Your task to perform on an android device: turn off location history Image 0: 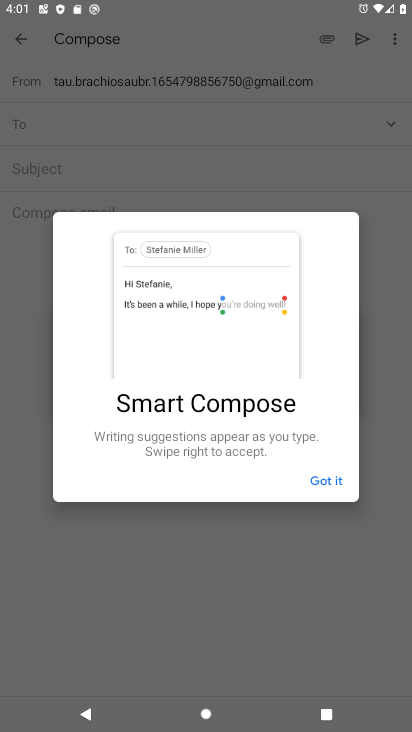
Step 0: press home button
Your task to perform on an android device: turn off location history Image 1: 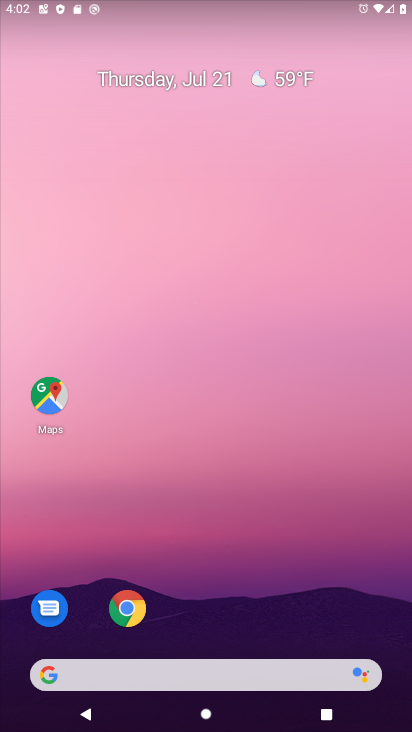
Step 1: drag from (228, 634) to (260, 64)
Your task to perform on an android device: turn off location history Image 2: 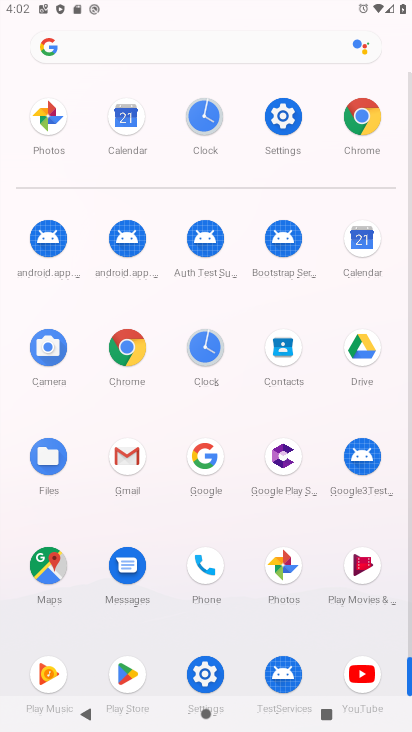
Step 2: click (280, 128)
Your task to perform on an android device: turn off location history Image 3: 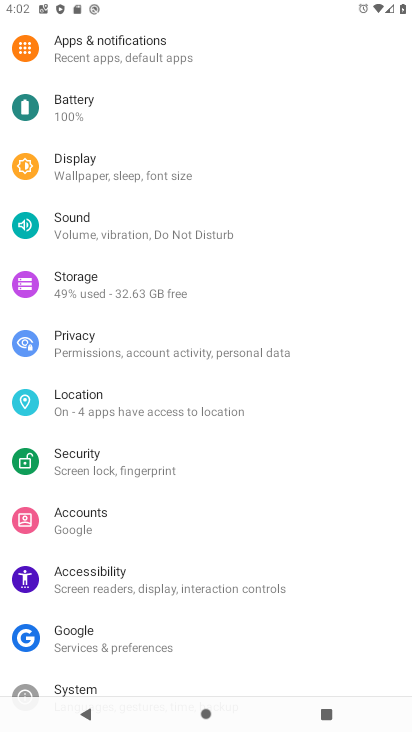
Step 3: click (121, 410)
Your task to perform on an android device: turn off location history Image 4: 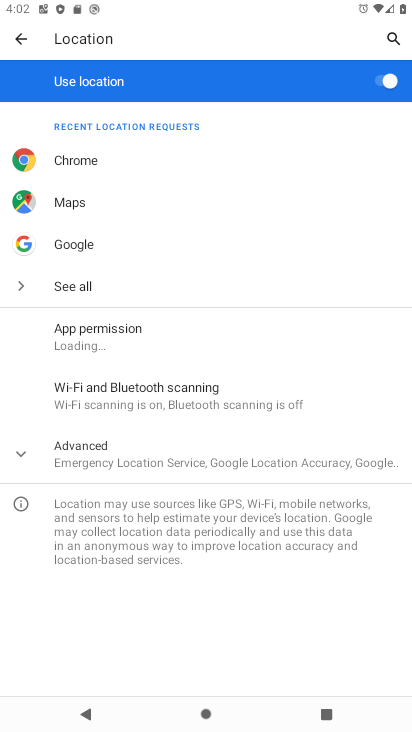
Step 4: click (377, 77)
Your task to perform on an android device: turn off location history Image 5: 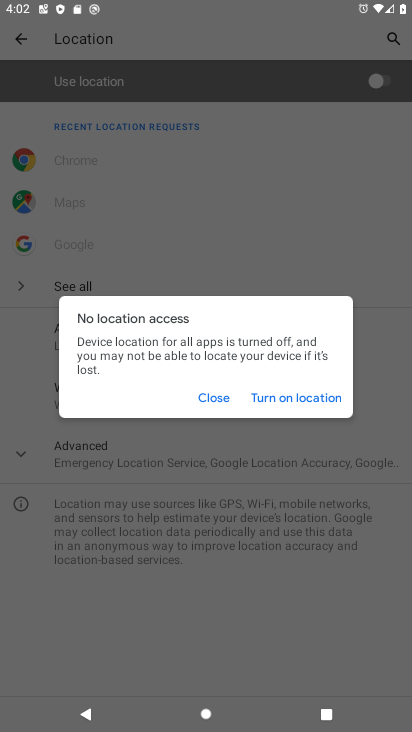
Step 5: task complete